Your task to perform on an android device: Open calendar and show me the fourth week of next month Image 0: 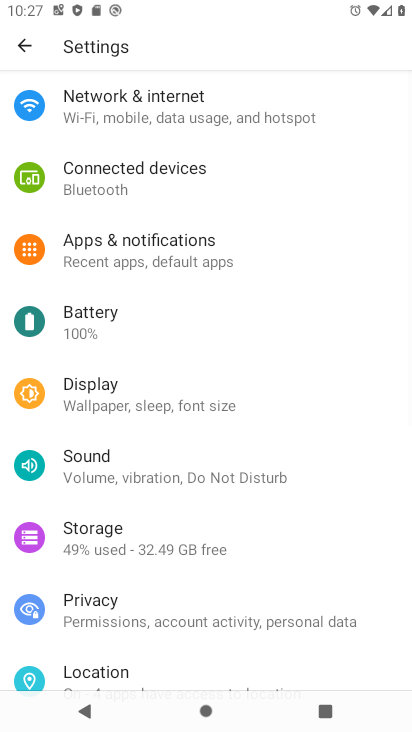
Step 0: press home button
Your task to perform on an android device: Open calendar and show me the fourth week of next month Image 1: 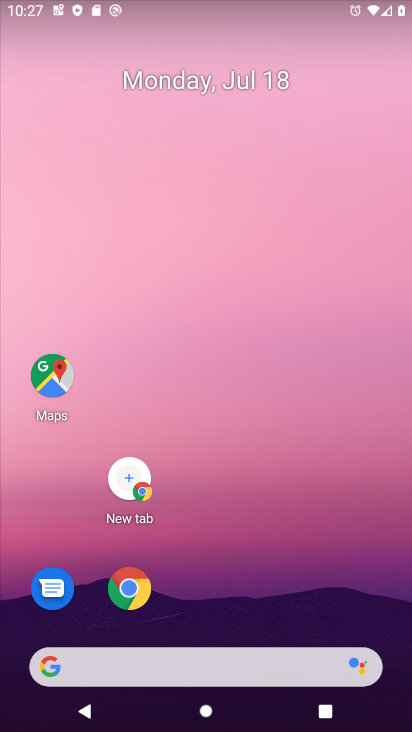
Step 1: click (202, 96)
Your task to perform on an android device: Open calendar and show me the fourth week of next month Image 2: 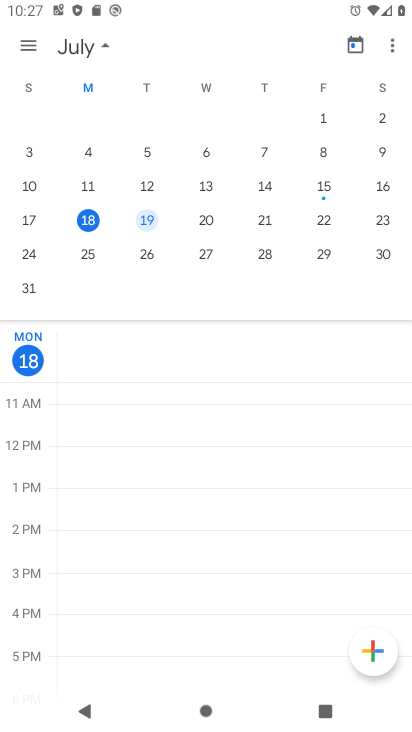
Step 2: drag from (342, 278) to (47, 263)
Your task to perform on an android device: Open calendar and show me the fourth week of next month Image 3: 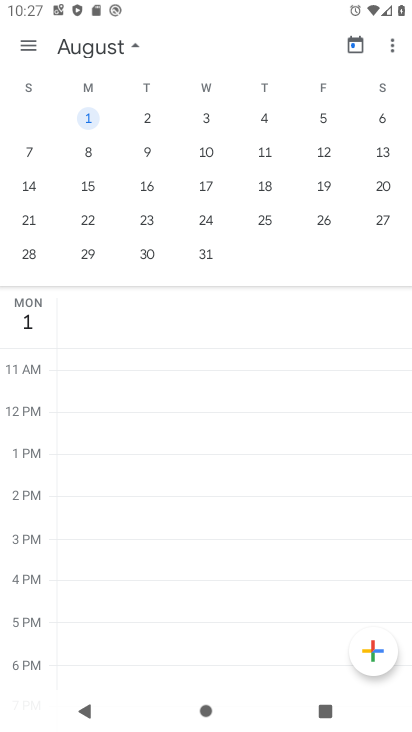
Step 3: click (153, 221)
Your task to perform on an android device: Open calendar and show me the fourth week of next month Image 4: 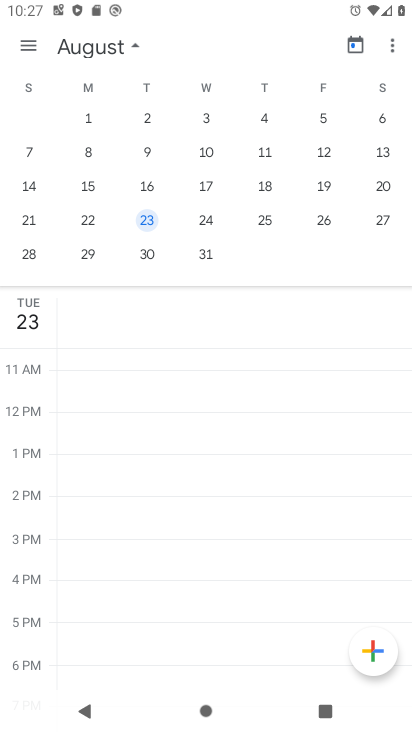
Step 4: task complete